Your task to perform on an android device: Search for bose quietcomfort 35 on costco.com, select the first entry, add it to the cart, then select checkout. Image 0: 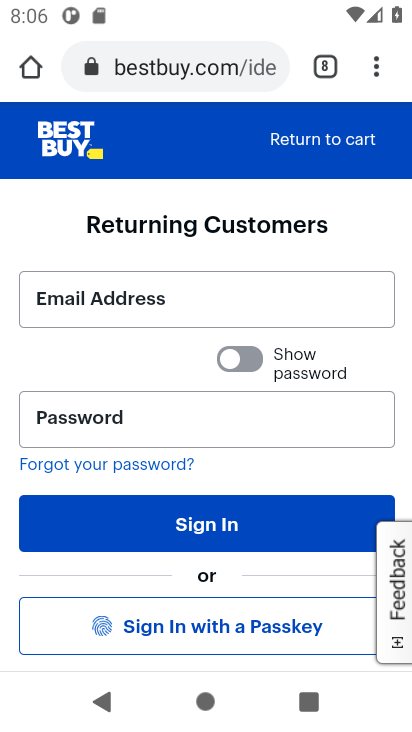
Step 0: press home button
Your task to perform on an android device: Search for bose quietcomfort 35 on costco.com, select the first entry, add it to the cart, then select checkout. Image 1: 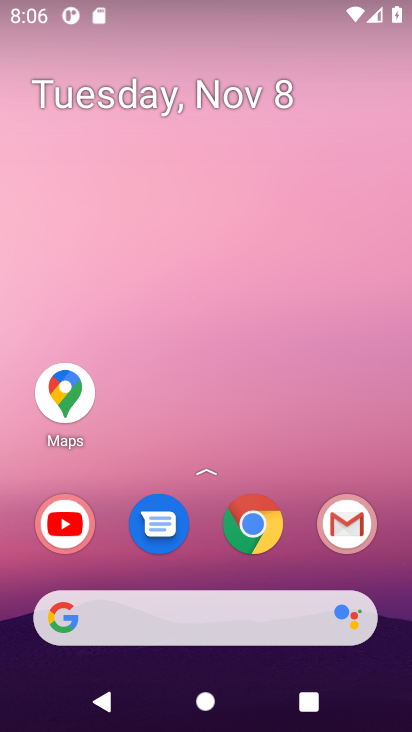
Step 1: click (257, 512)
Your task to perform on an android device: Search for bose quietcomfort 35 on costco.com, select the first entry, add it to the cart, then select checkout. Image 2: 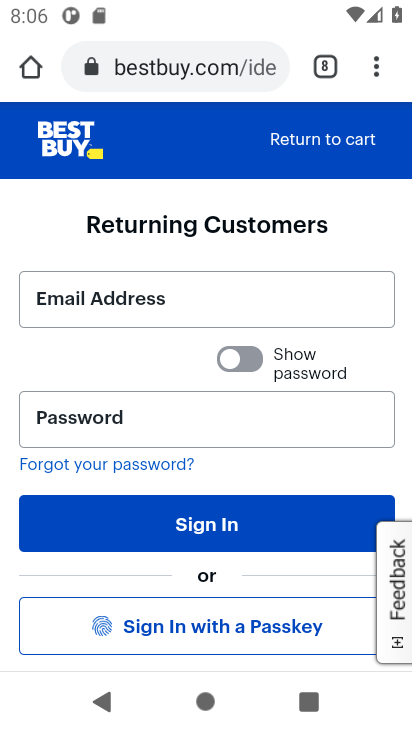
Step 2: click (217, 59)
Your task to perform on an android device: Search for bose quietcomfort 35 on costco.com, select the first entry, add it to the cart, then select checkout. Image 3: 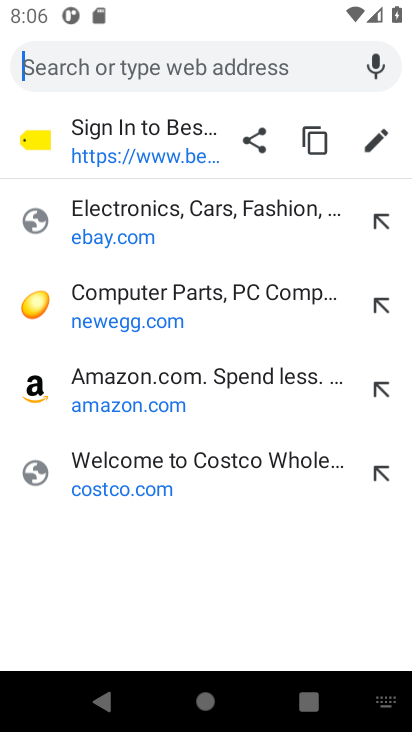
Step 3: click (127, 472)
Your task to perform on an android device: Search for bose quietcomfort 35 on costco.com, select the first entry, add it to the cart, then select checkout. Image 4: 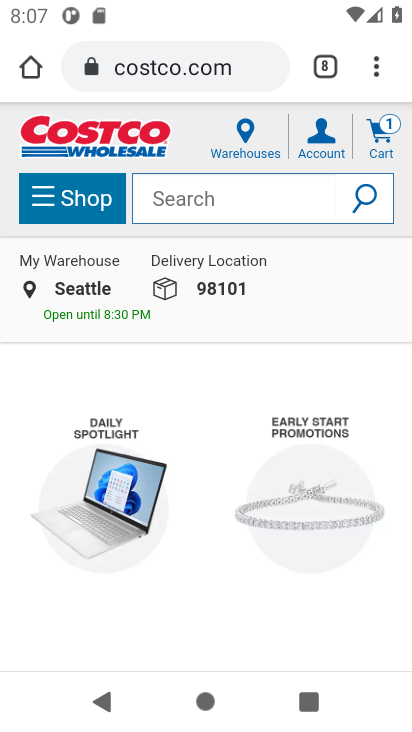
Step 4: click (186, 201)
Your task to perform on an android device: Search for bose quietcomfort 35 on costco.com, select the first entry, add it to the cart, then select checkout. Image 5: 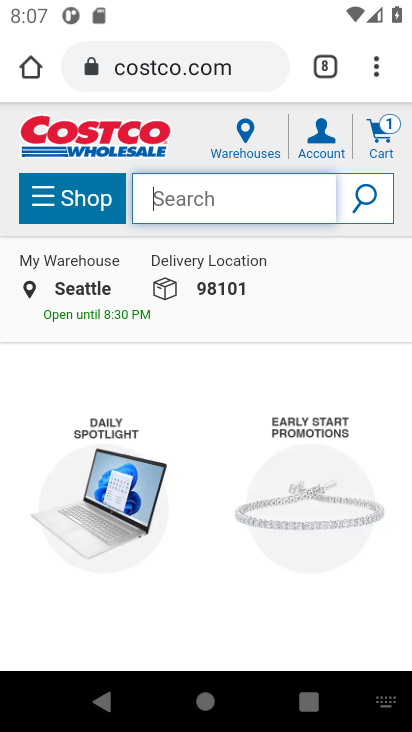
Step 5: type "bose quietcomfort 35"
Your task to perform on an android device: Search for bose quietcomfort 35 on costco.com, select the first entry, add it to the cart, then select checkout. Image 6: 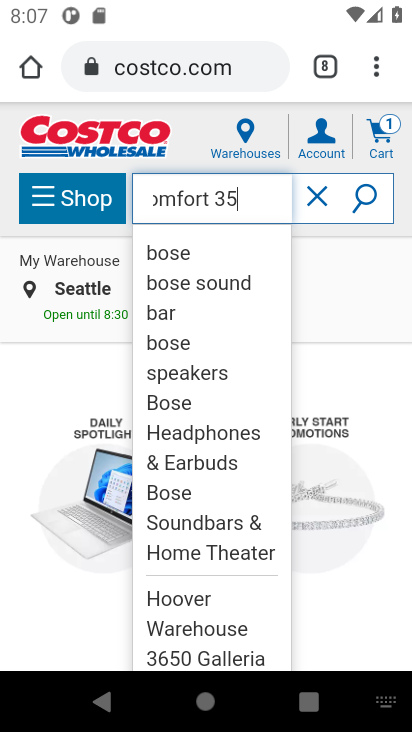
Step 6: click (352, 197)
Your task to perform on an android device: Search for bose quietcomfort 35 on costco.com, select the first entry, add it to the cart, then select checkout. Image 7: 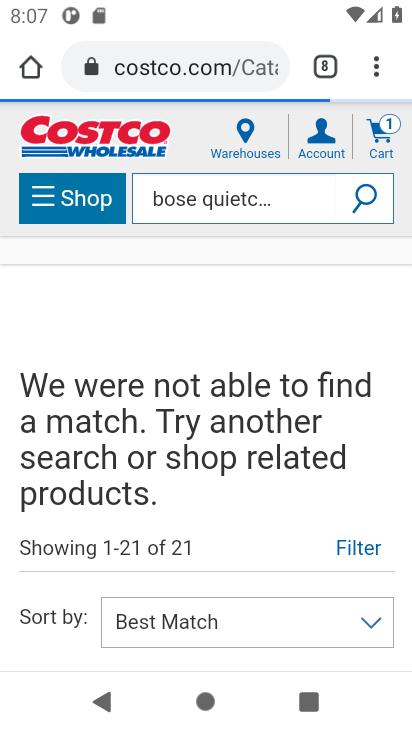
Step 7: task complete